Your task to perform on an android device: turn on notifications settings in the gmail app Image 0: 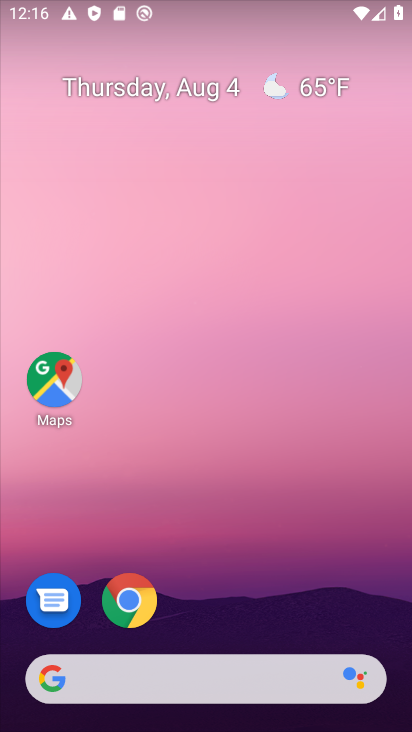
Step 0: drag from (209, 641) to (147, 30)
Your task to perform on an android device: turn on notifications settings in the gmail app Image 1: 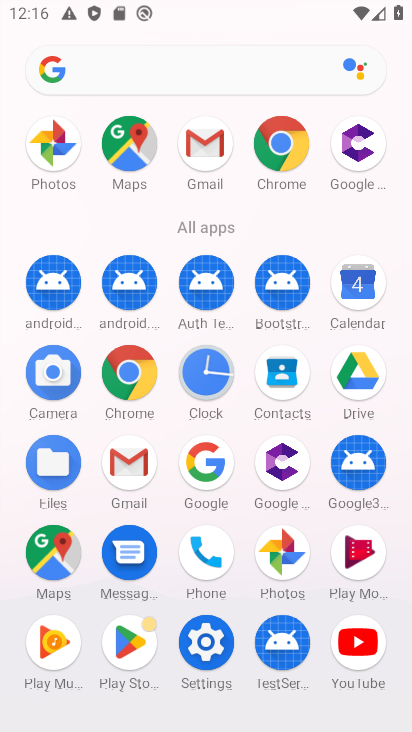
Step 1: click (127, 473)
Your task to perform on an android device: turn on notifications settings in the gmail app Image 2: 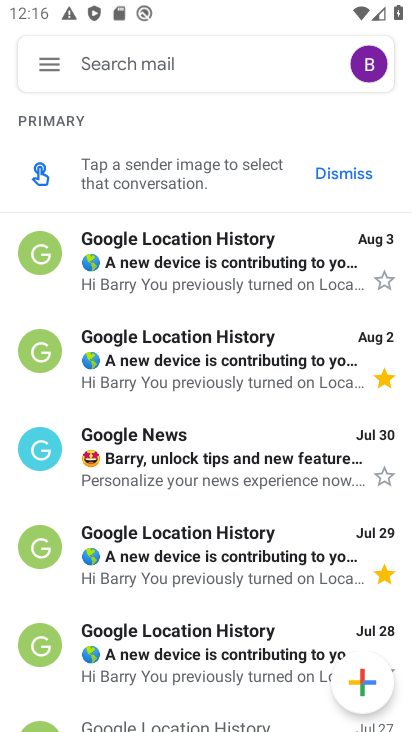
Step 2: click (48, 72)
Your task to perform on an android device: turn on notifications settings in the gmail app Image 3: 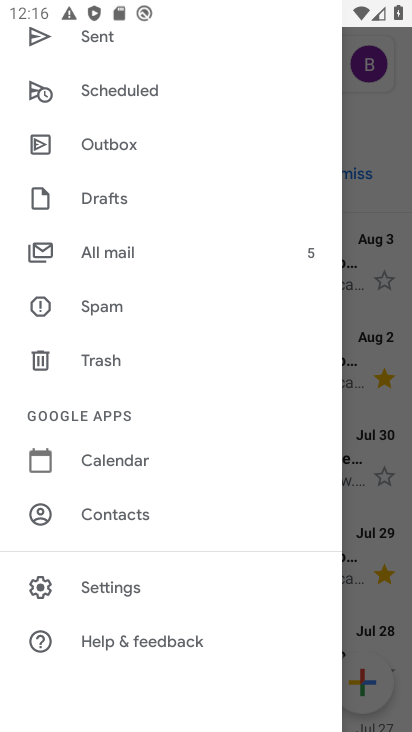
Step 3: click (117, 581)
Your task to perform on an android device: turn on notifications settings in the gmail app Image 4: 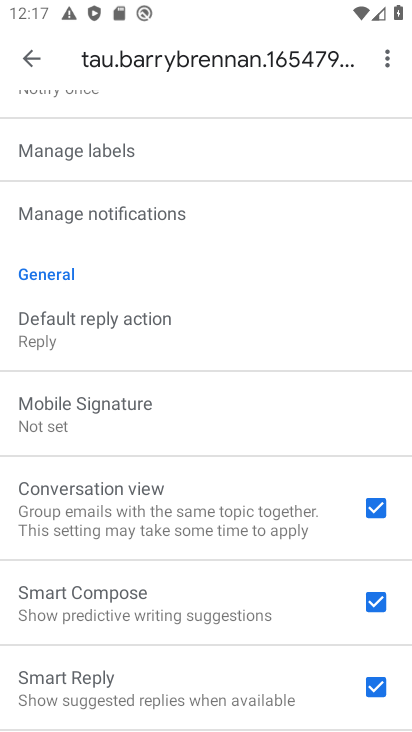
Step 4: click (37, 66)
Your task to perform on an android device: turn on notifications settings in the gmail app Image 5: 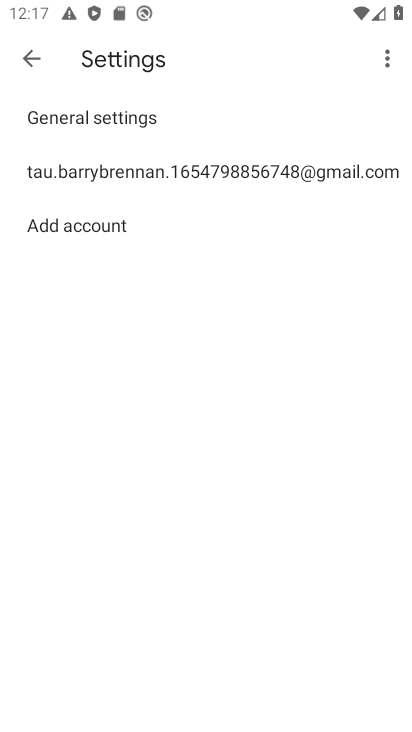
Step 5: click (86, 133)
Your task to perform on an android device: turn on notifications settings in the gmail app Image 6: 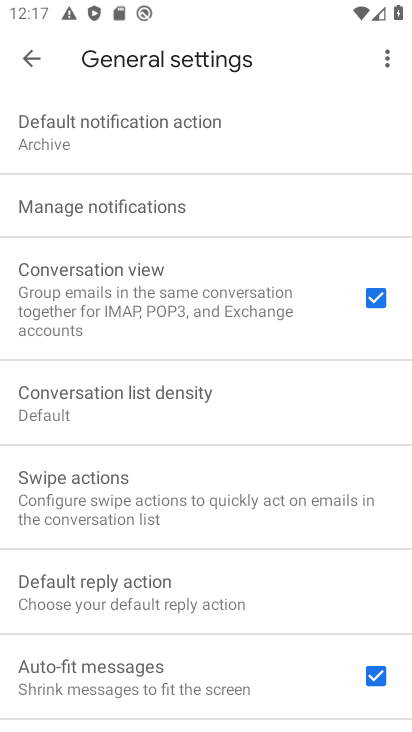
Step 6: click (96, 205)
Your task to perform on an android device: turn on notifications settings in the gmail app Image 7: 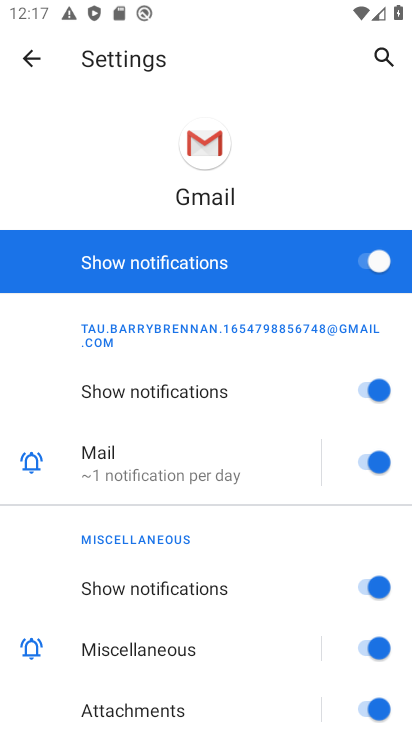
Step 7: task complete